Your task to perform on an android device: What's the weather going to be tomorrow? Image 0: 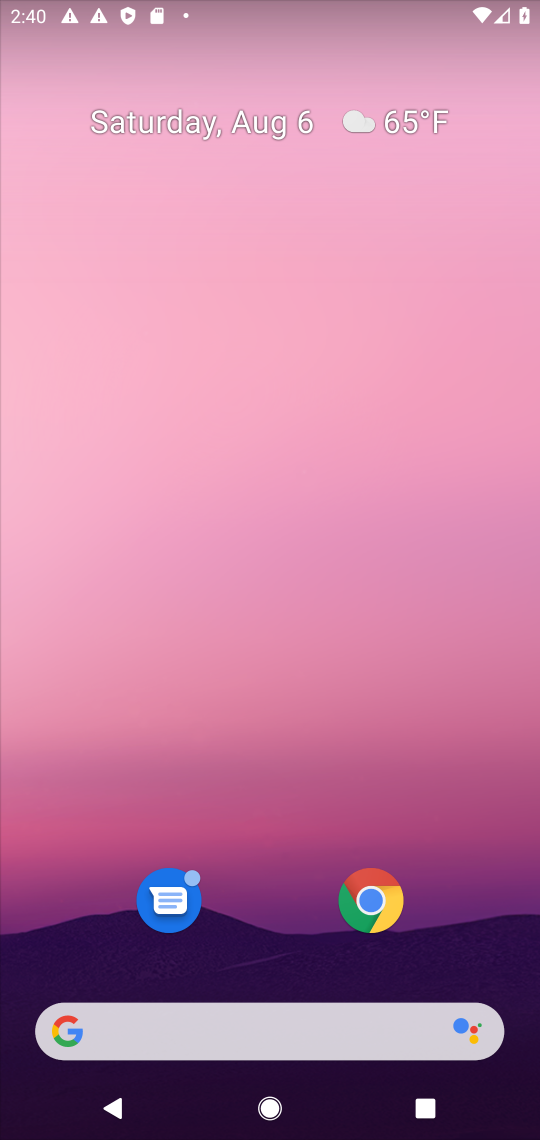
Step 0: press home button
Your task to perform on an android device: What's the weather going to be tomorrow? Image 1: 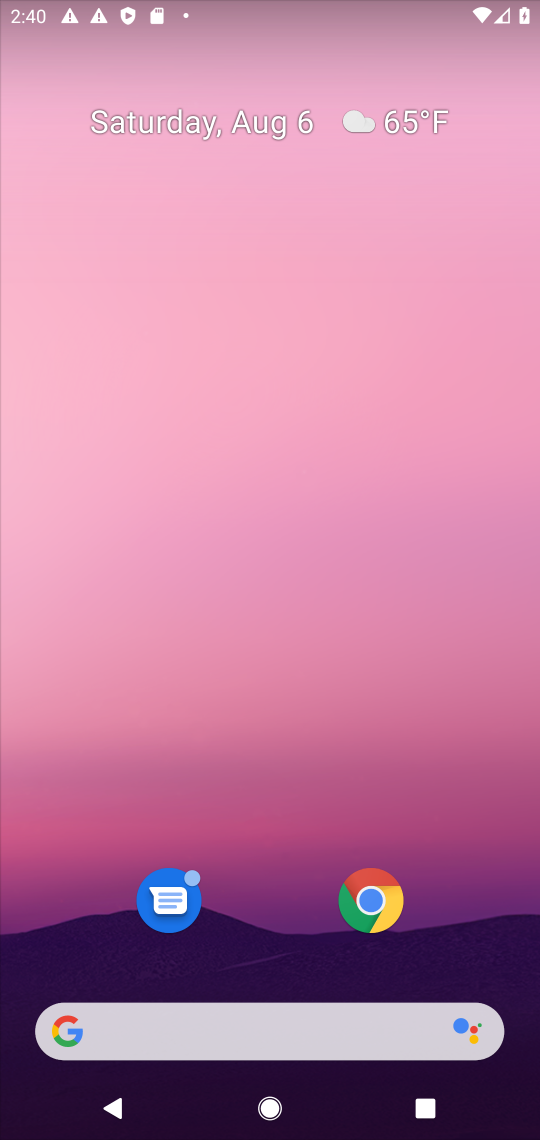
Step 1: click (66, 1027)
Your task to perform on an android device: What's the weather going to be tomorrow? Image 2: 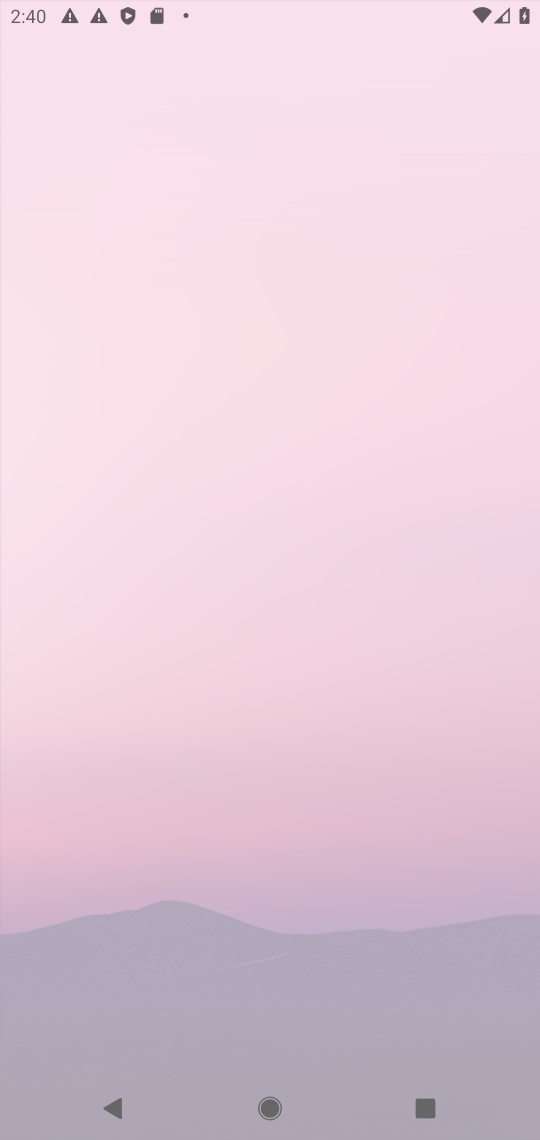
Step 2: click (59, 1017)
Your task to perform on an android device: What's the weather going to be tomorrow? Image 3: 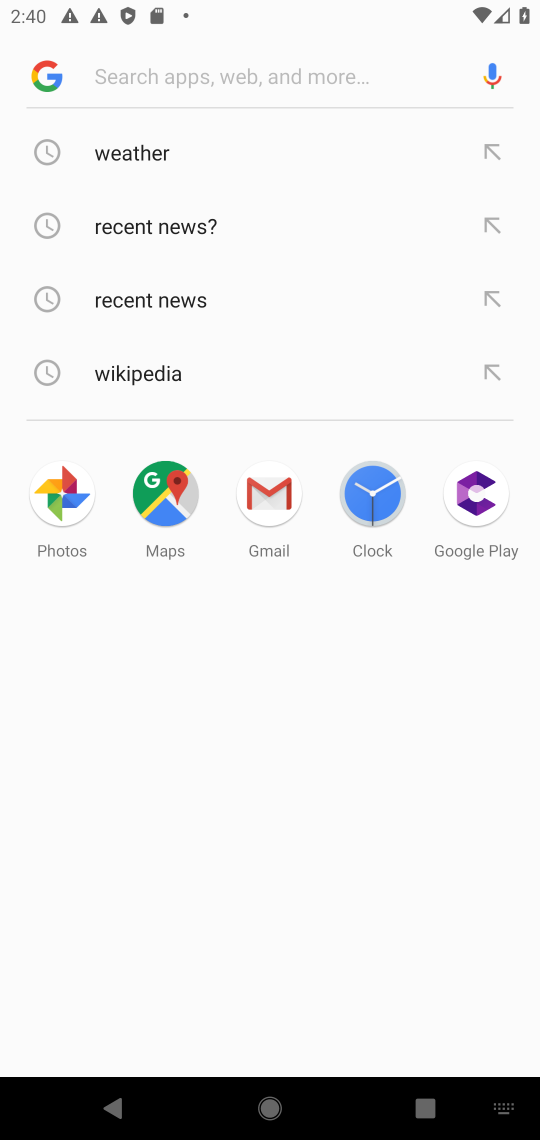
Step 3: type "What's the weather going to be tomorrow?"
Your task to perform on an android device: What's the weather going to be tomorrow? Image 4: 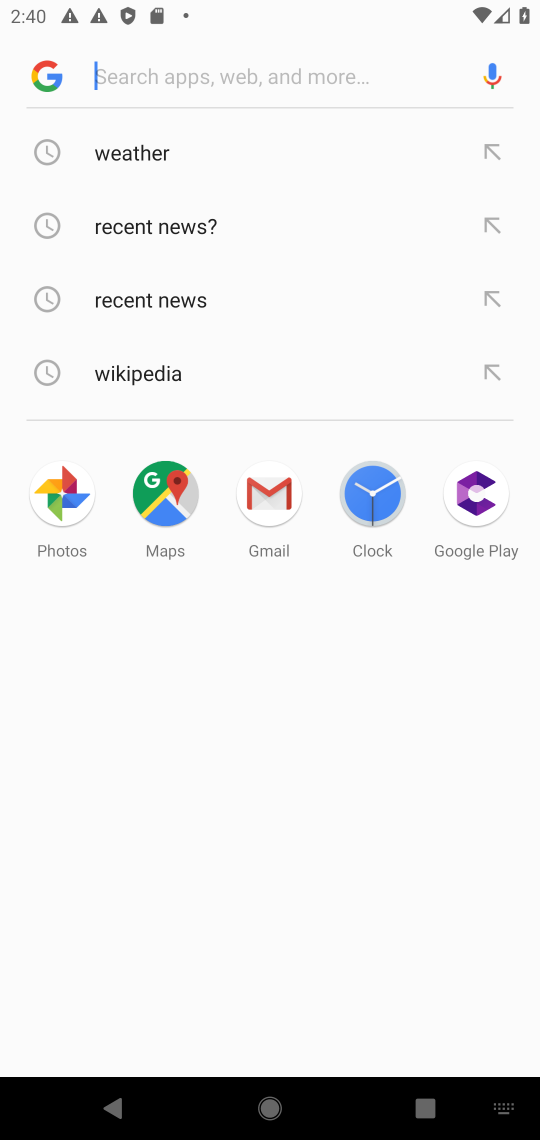
Step 4: click (135, 66)
Your task to perform on an android device: What's the weather going to be tomorrow? Image 5: 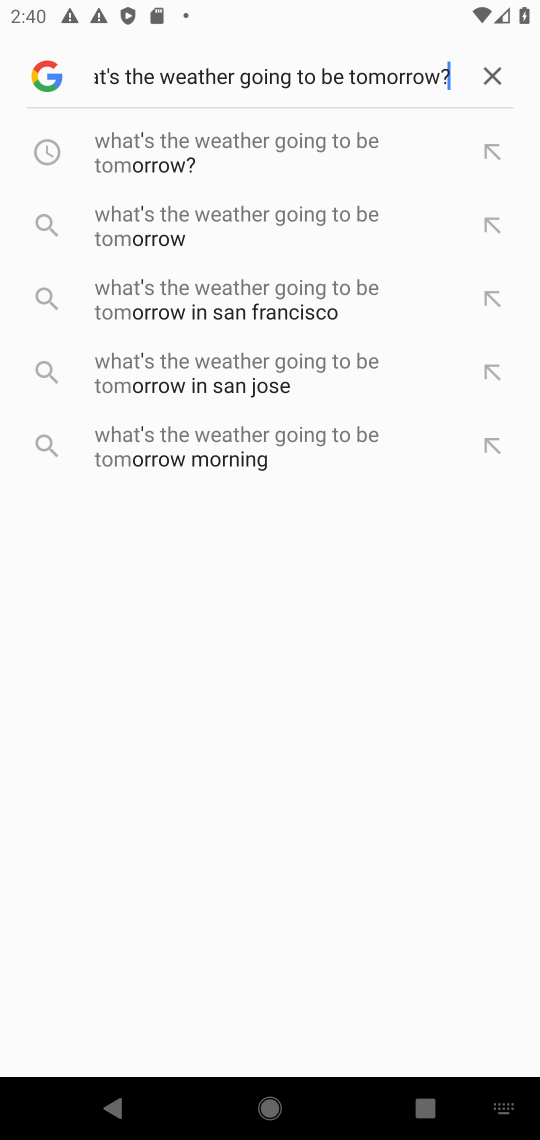
Step 5: type "What's the weather going to be tomorrow?"
Your task to perform on an android device: What's the weather going to be tomorrow? Image 6: 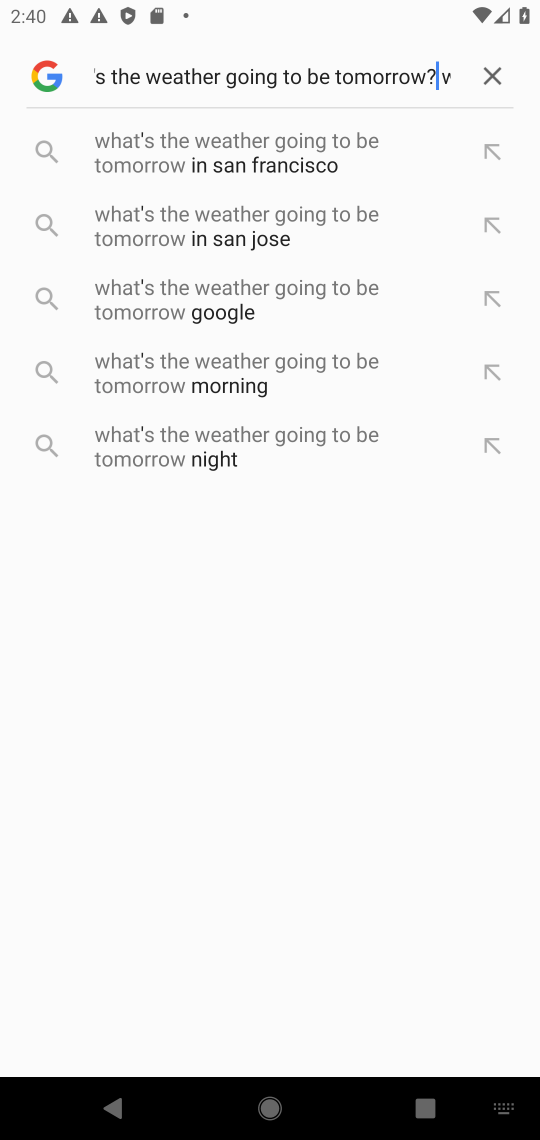
Step 6: press enter
Your task to perform on an android device: What's the weather going to be tomorrow? Image 7: 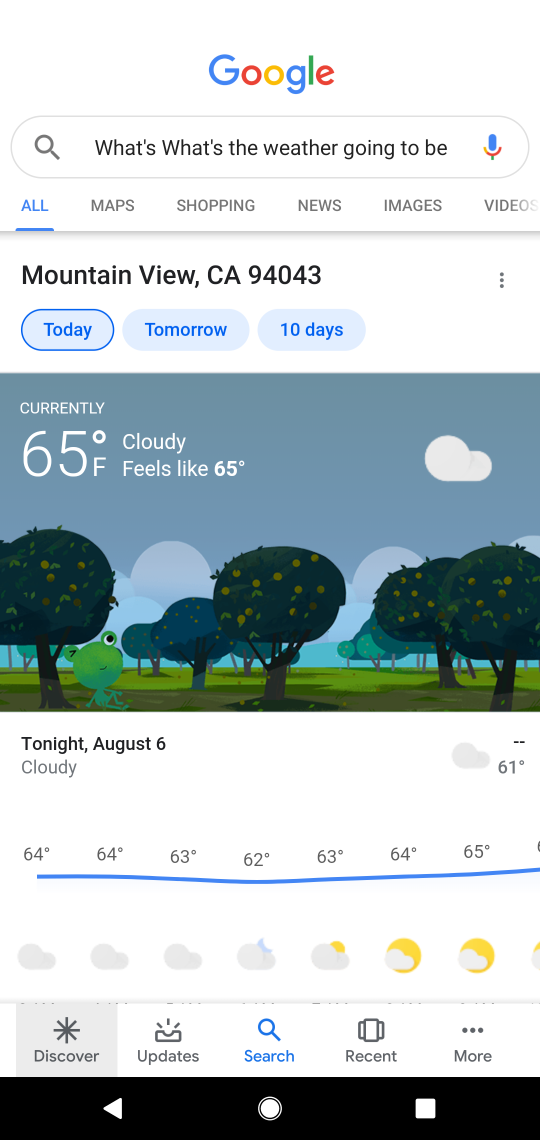
Step 7: task complete